Your task to perform on an android device: Open Google Maps Image 0: 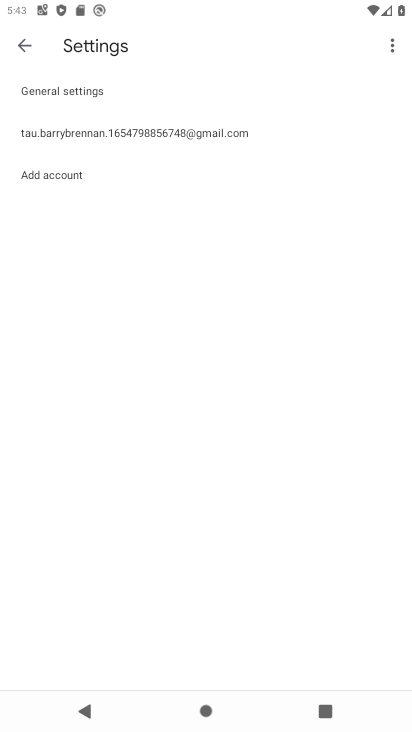
Step 0: press back button
Your task to perform on an android device: Open Google Maps Image 1: 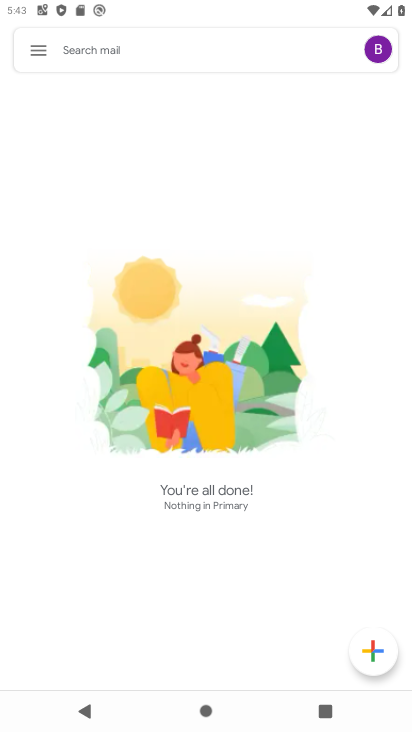
Step 1: press back button
Your task to perform on an android device: Open Google Maps Image 2: 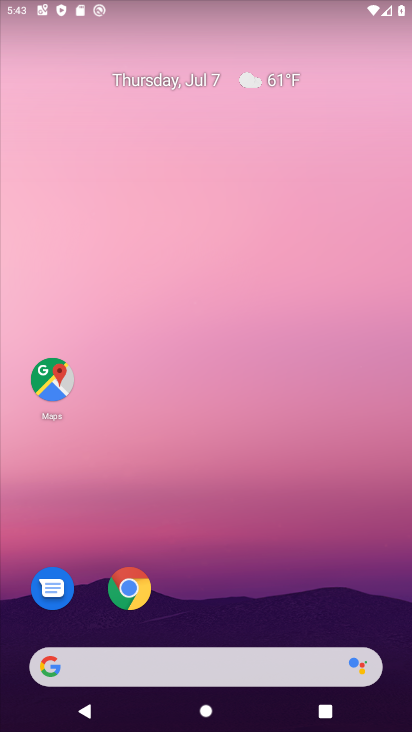
Step 2: drag from (237, 561) to (280, 45)
Your task to perform on an android device: Open Google Maps Image 3: 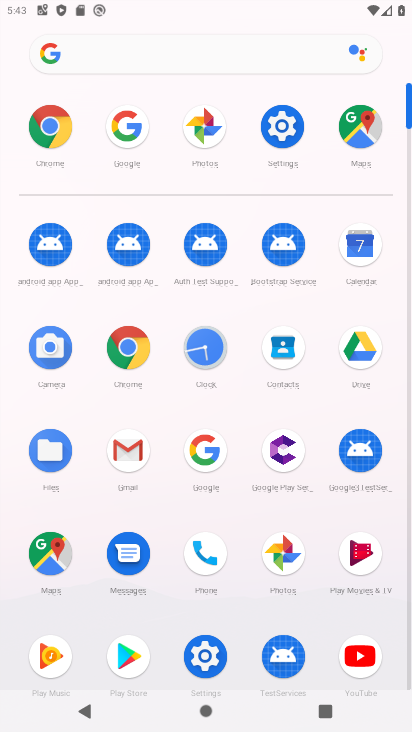
Step 3: click (354, 126)
Your task to perform on an android device: Open Google Maps Image 4: 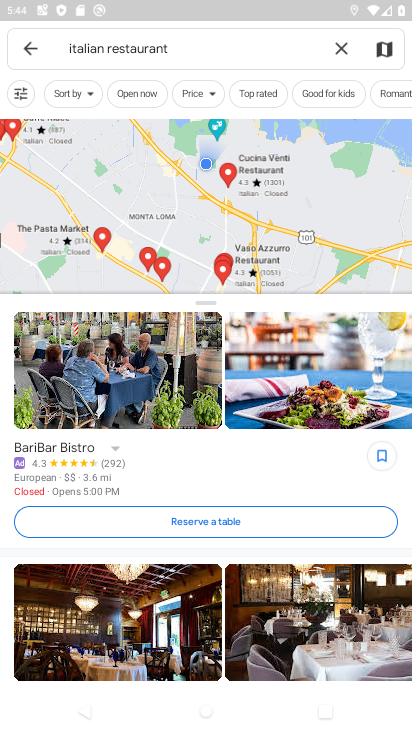
Step 4: task complete